Your task to perform on an android device: Go to display settings Image 0: 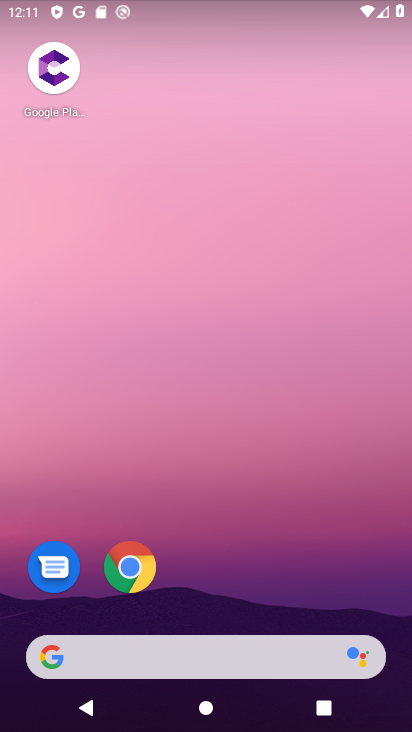
Step 0: drag from (214, 593) to (197, 105)
Your task to perform on an android device: Go to display settings Image 1: 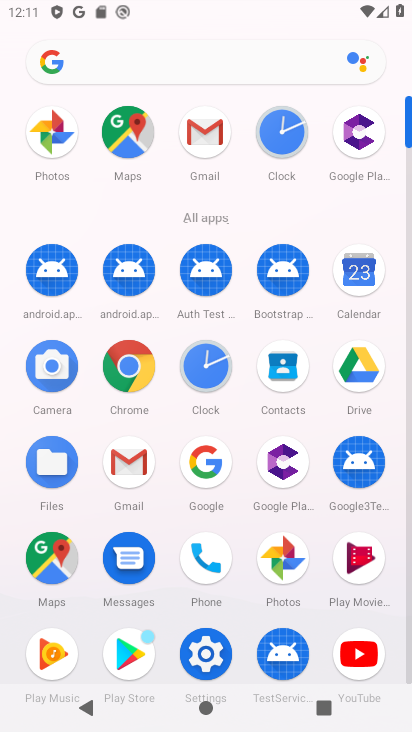
Step 1: click (197, 656)
Your task to perform on an android device: Go to display settings Image 2: 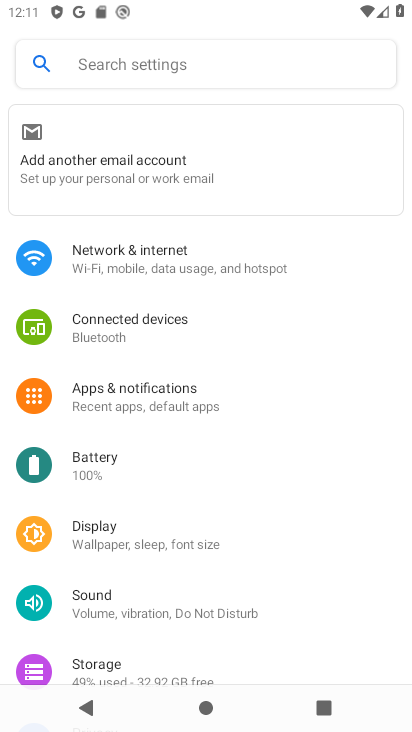
Step 2: click (155, 525)
Your task to perform on an android device: Go to display settings Image 3: 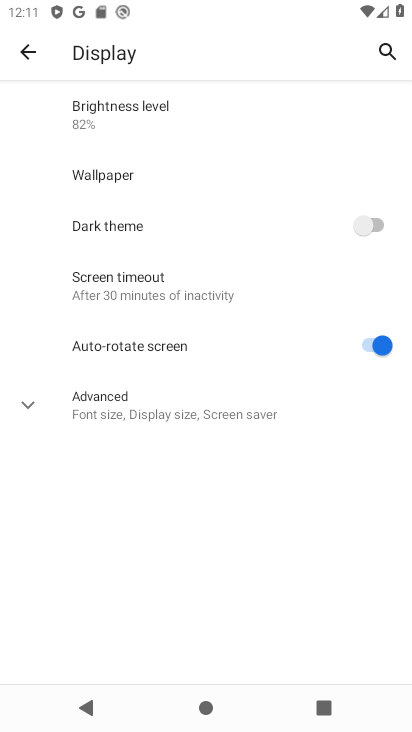
Step 3: task complete